Your task to perform on an android device: see tabs open on other devices in the chrome app Image 0: 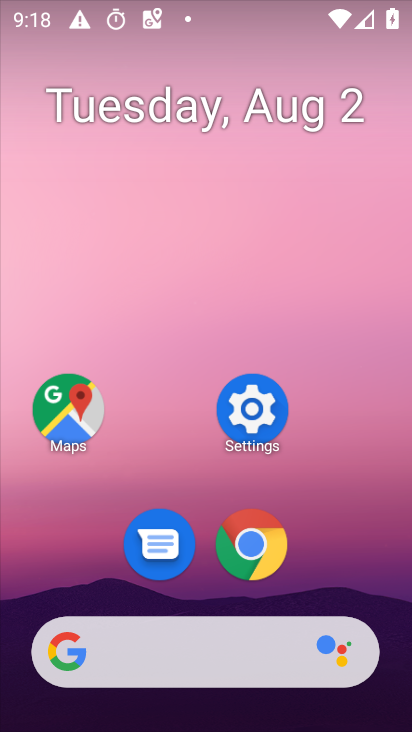
Step 0: click (257, 557)
Your task to perform on an android device: see tabs open on other devices in the chrome app Image 1: 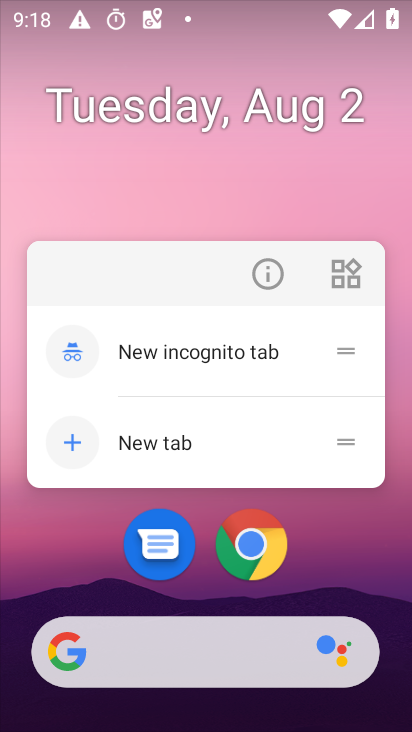
Step 1: click (253, 551)
Your task to perform on an android device: see tabs open on other devices in the chrome app Image 2: 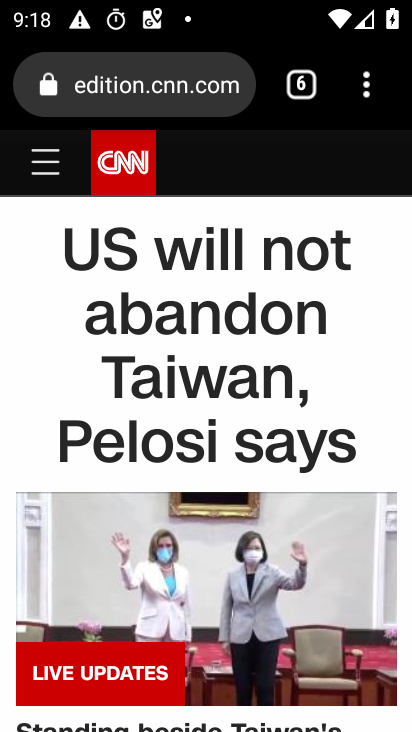
Step 2: task complete